Your task to perform on an android device: Go to ESPN.com Image 0: 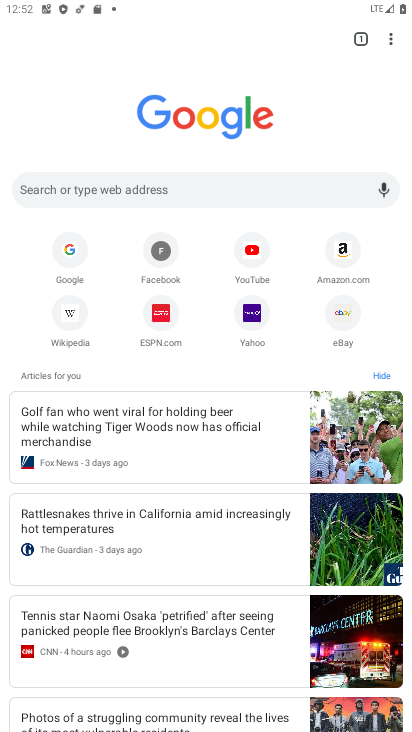
Step 0: click (209, 185)
Your task to perform on an android device: Go to ESPN.com Image 1: 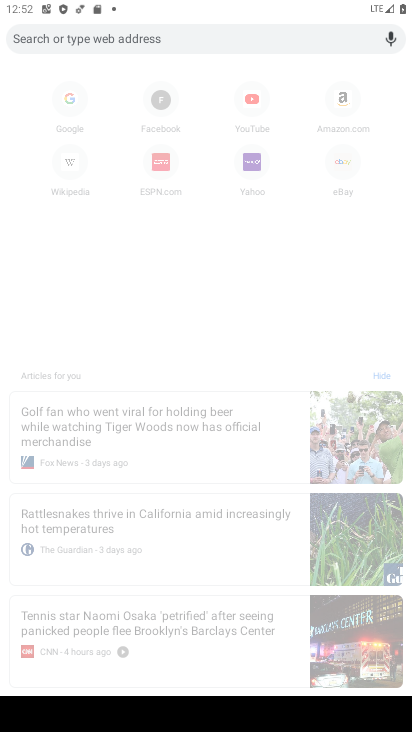
Step 1: type "espn.com"
Your task to perform on an android device: Go to ESPN.com Image 2: 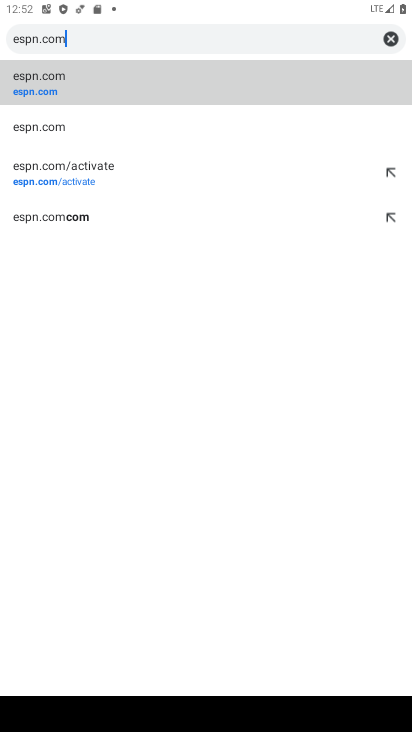
Step 2: click (105, 155)
Your task to perform on an android device: Go to ESPN.com Image 3: 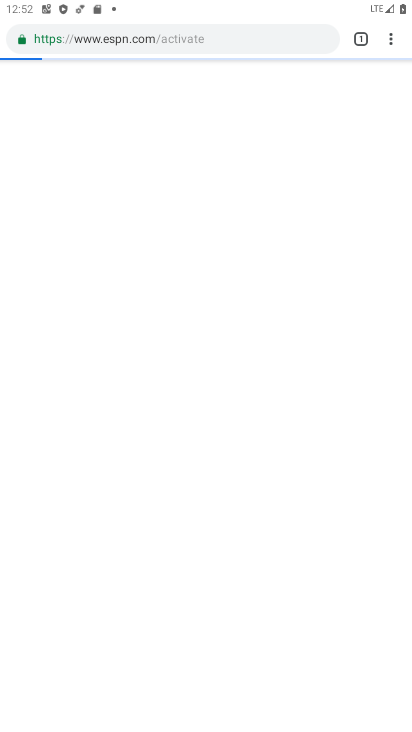
Step 3: task complete